Your task to perform on an android device: Toggle the flashlight Image 0: 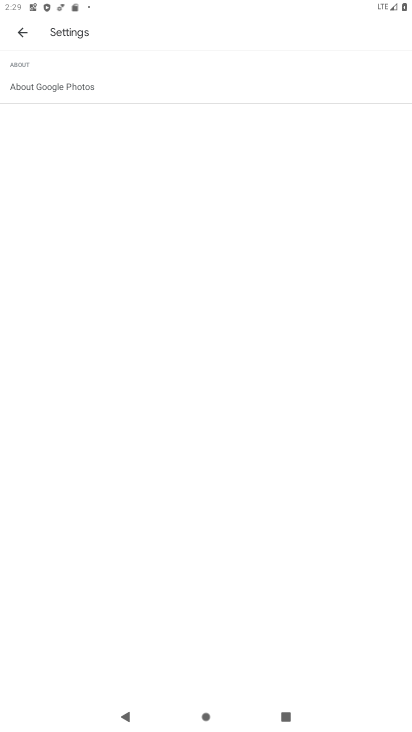
Step 0: click (17, 34)
Your task to perform on an android device: Toggle the flashlight Image 1: 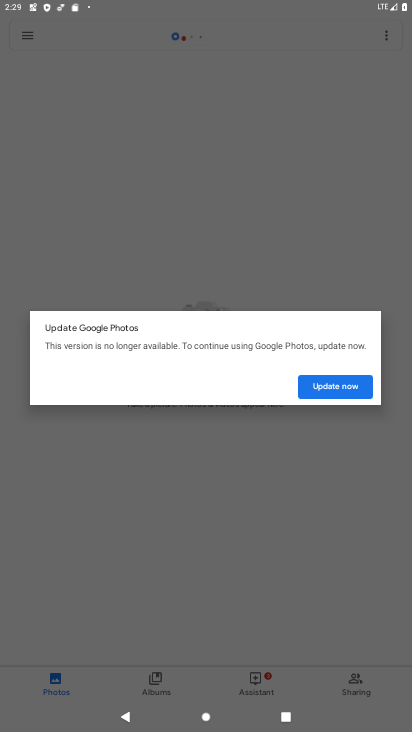
Step 1: press home button
Your task to perform on an android device: Toggle the flashlight Image 2: 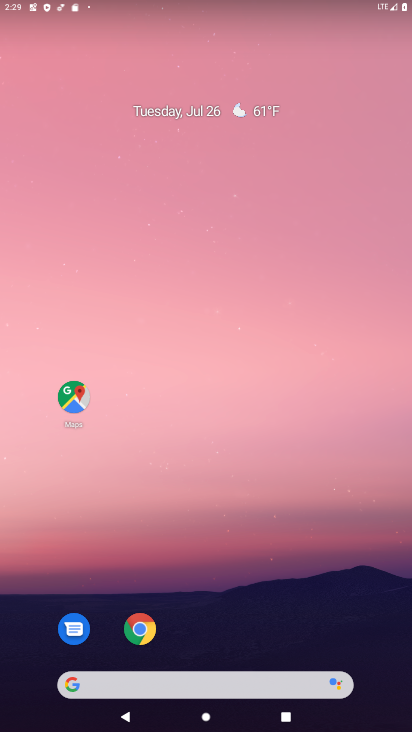
Step 2: drag from (233, 573) to (233, 15)
Your task to perform on an android device: Toggle the flashlight Image 3: 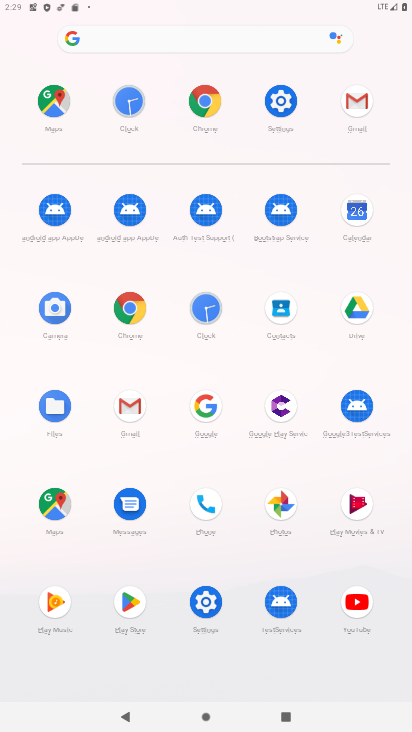
Step 3: click (278, 104)
Your task to perform on an android device: Toggle the flashlight Image 4: 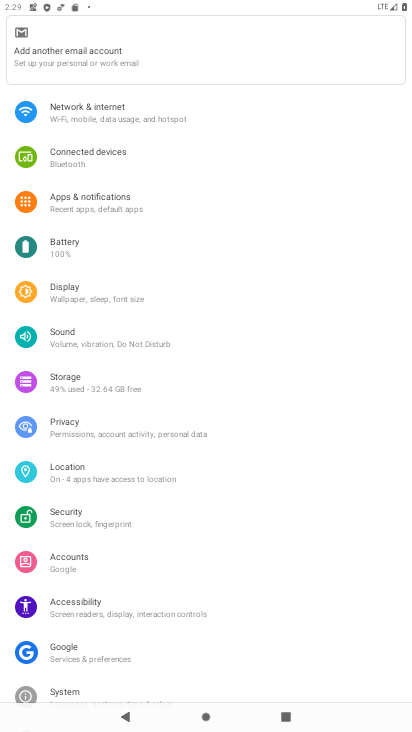
Step 4: click (61, 324)
Your task to perform on an android device: Toggle the flashlight Image 5: 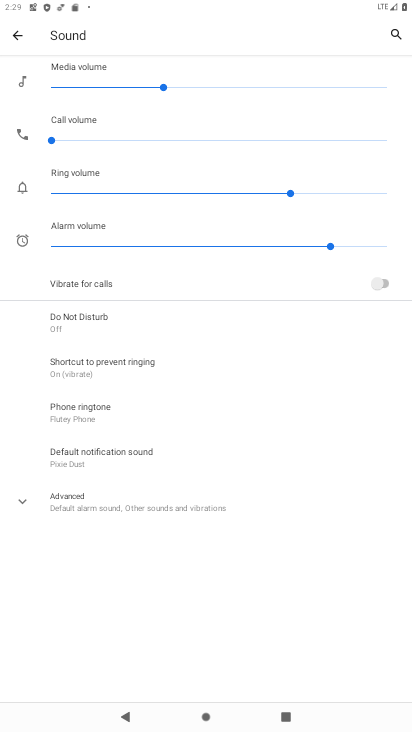
Step 5: task complete